Your task to perform on an android device: Open calendar and show me the first week of next month Image 0: 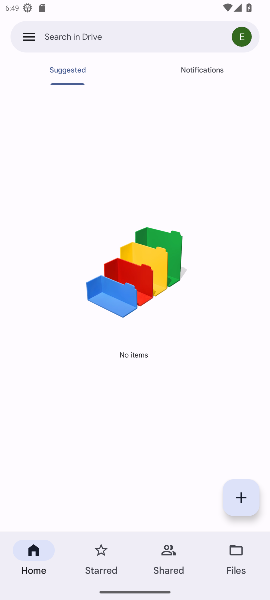
Step 0: task complete